Your task to perform on an android device: Search for vegetarian restaurants on Maps Image 0: 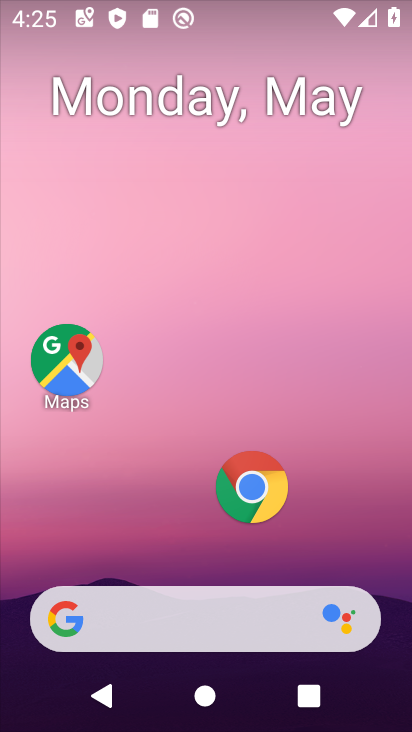
Step 0: click (74, 362)
Your task to perform on an android device: Search for vegetarian restaurants on Maps Image 1: 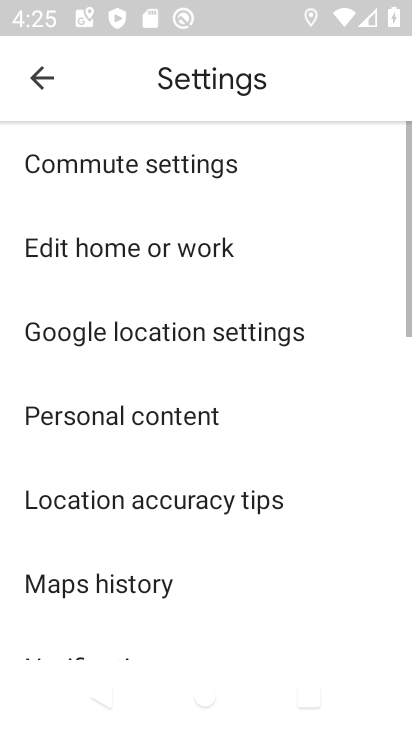
Step 1: press home button
Your task to perform on an android device: Search for vegetarian restaurants on Maps Image 2: 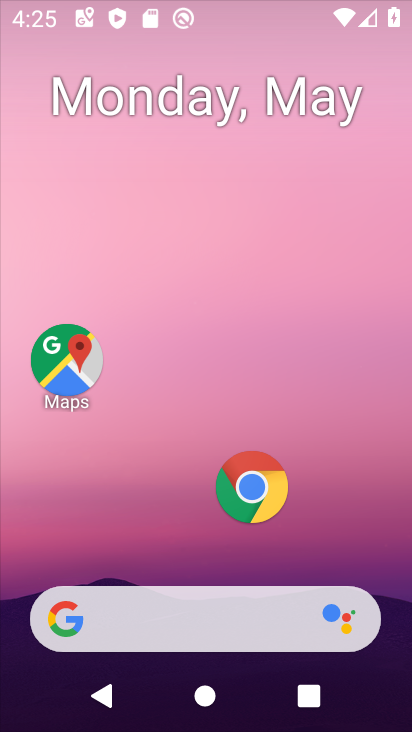
Step 2: click (58, 363)
Your task to perform on an android device: Search for vegetarian restaurants on Maps Image 3: 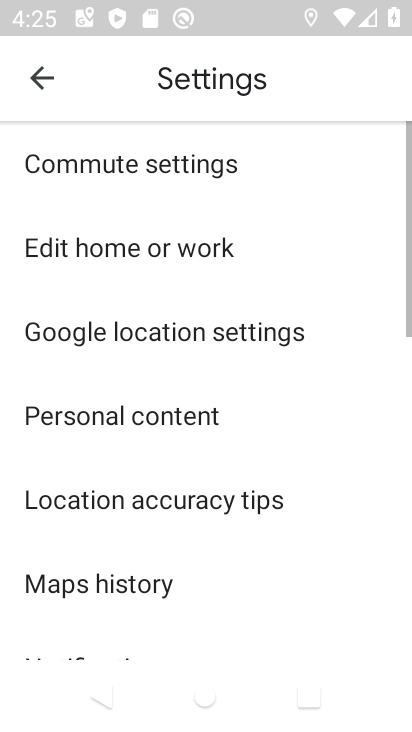
Step 3: click (29, 59)
Your task to perform on an android device: Search for vegetarian restaurants on Maps Image 4: 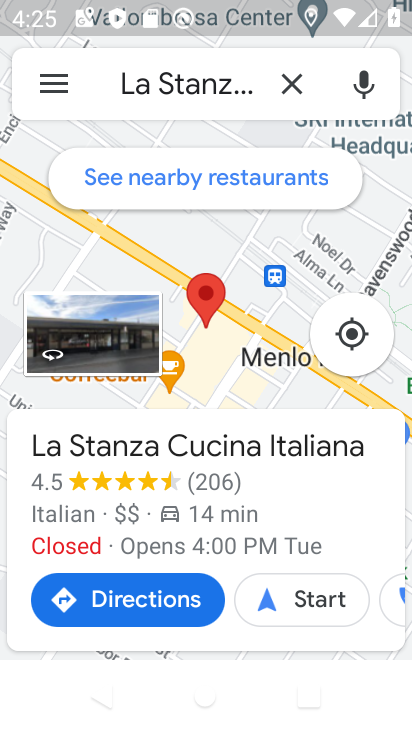
Step 4: click (294, 101)
Your task to perform on an android device: Search for vegetarian restaurants on Maps Image 5: 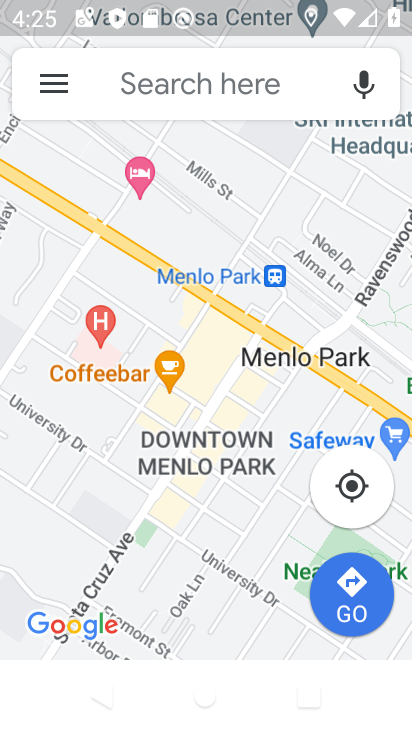
Step 5: click (204, 97)
Your task to perform on an android device: Search for vegetarian restaurants on Maps Image 6: 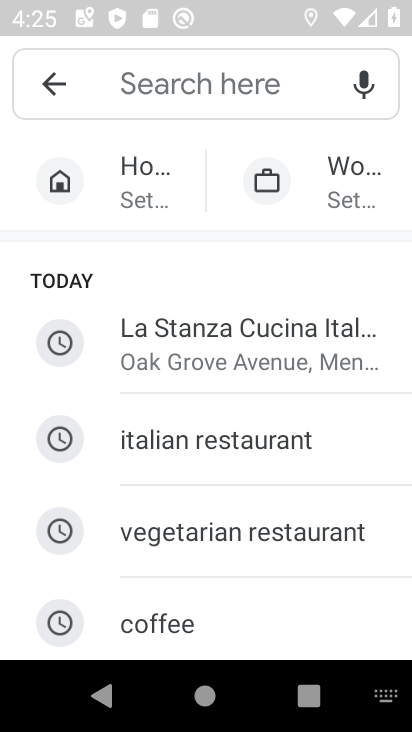
Step 6: click (186, 547)
Your task to perform on an android device: Search for vegetarian restaurants on Maps Image 7: 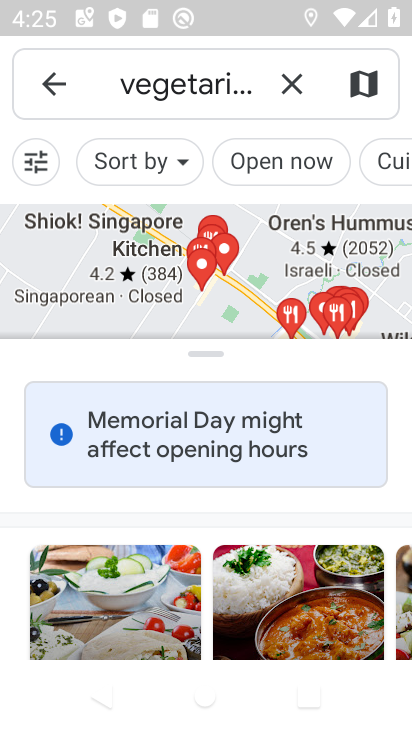
Step 7: task complete